Your task to perform on an android device: Open Chrome and go to the settings page Image 0: 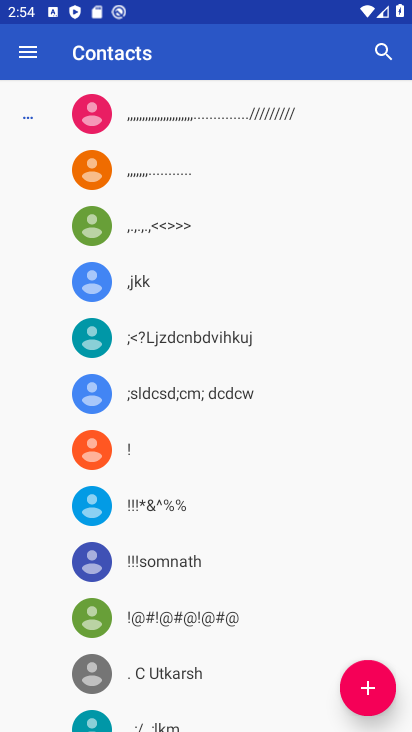
Step 0: press home button
Your task to perform on an android device: Open Chrome and go to the settings page Image 1: 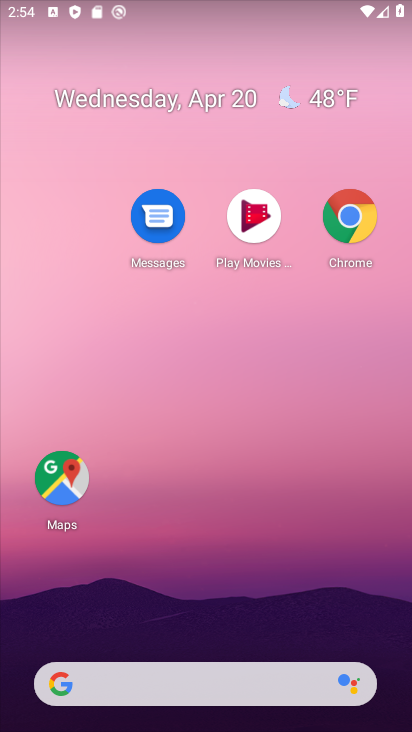
Step 1: click (351, 233)
Your task to perform on an android device: Open Chrome and go to the settings page Image 2: 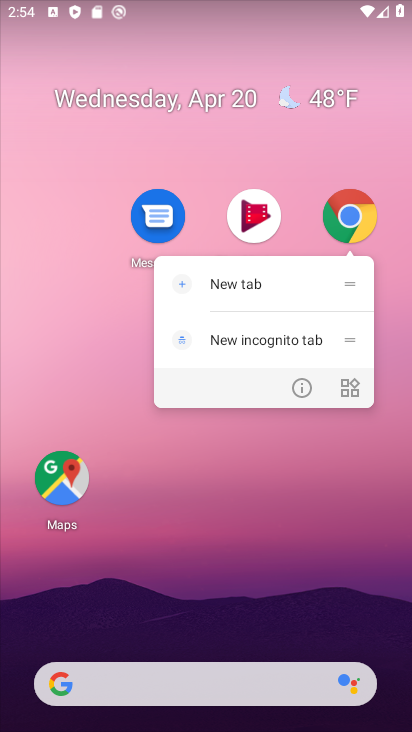
Step 2: click (296, 389)
Your task to perform on an android device: Open Chrome and go to the settings page Image 3: 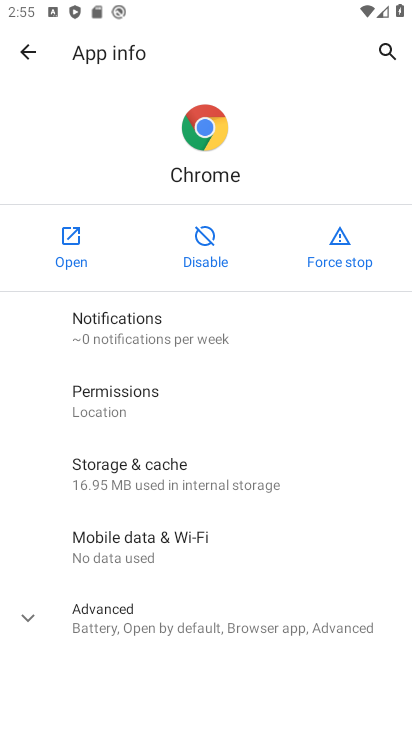
Step 3: click (74, 243)
Your task to perform on an android device: Open Chrome and go to the settings page Image 4: 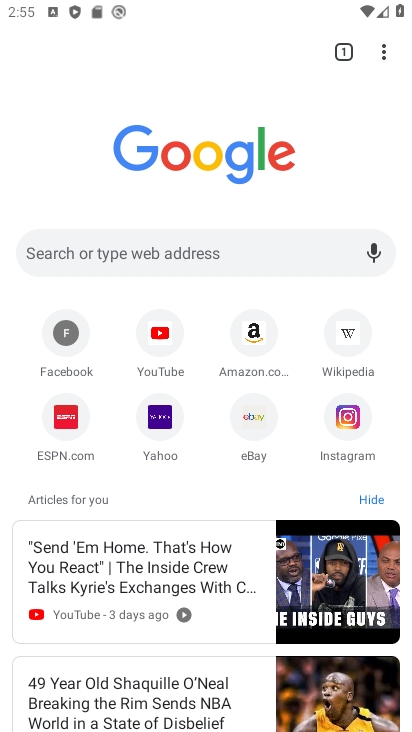
Step 4: click (383, 61)
Your task to perform on an android device: Open Chrome and go to the settings page Image 5: 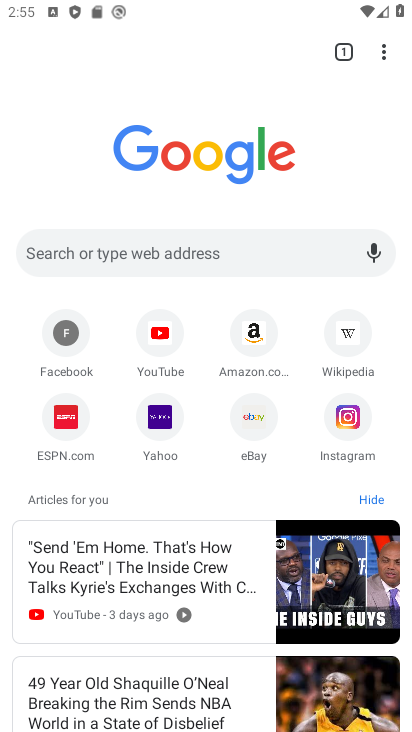
Step 5: click (383, 61)
Your task to perform on an android device: Open Chrome and go to the settings page Image 6: 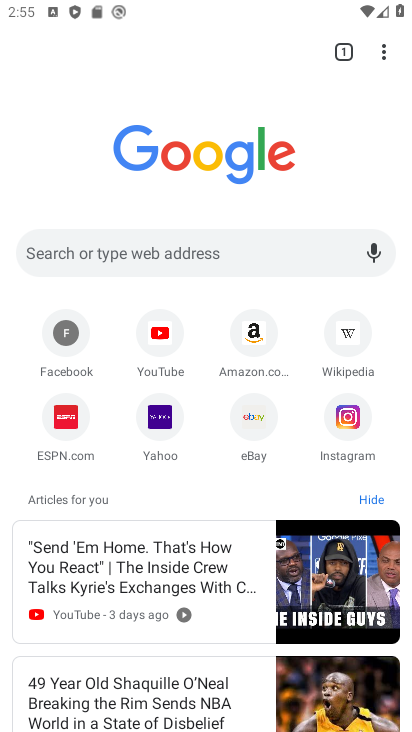
Step 6: click (387, 55)
Your task to perform on an android device: Open Chrome and go to the settings page Image 7: 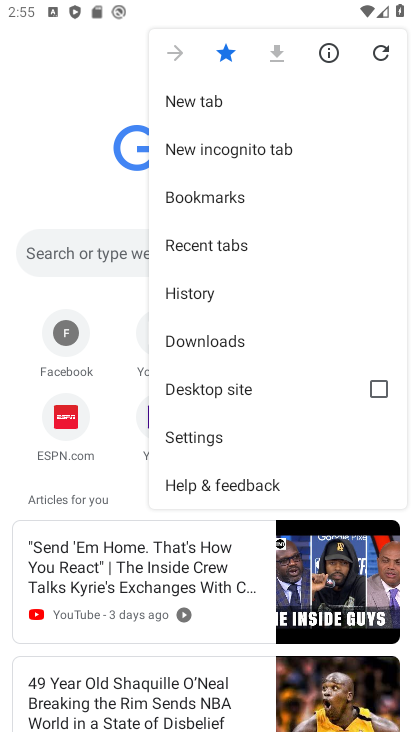
Step 7: click (237, 446)
Your task to perform on an android device: Open Chrome and go to the settings page Image 8: 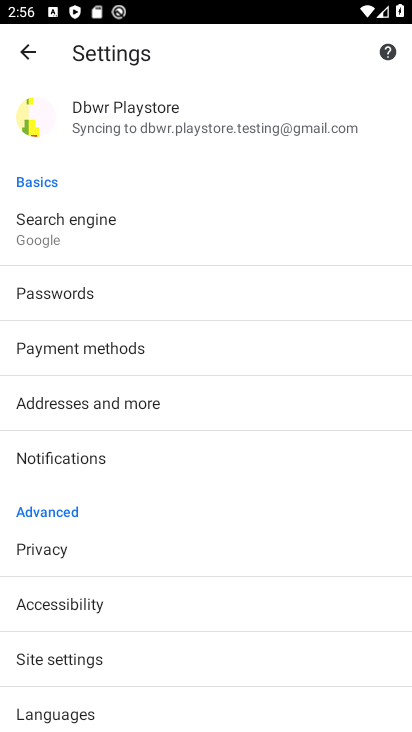
Step 8: task complete